Your task to perform on an android device: Go to battery settings Image 0: 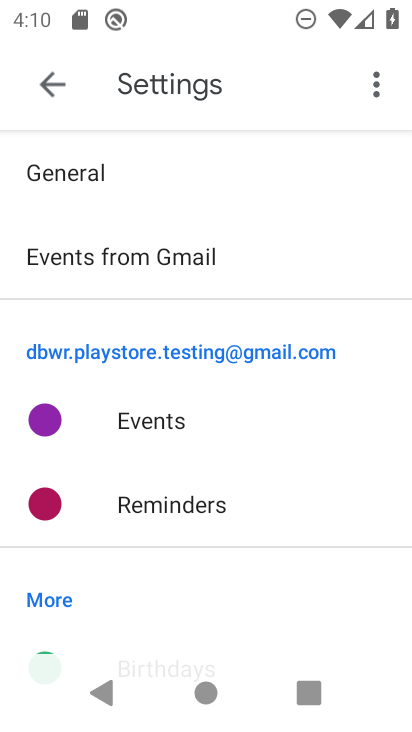
Step 0: press home button
Your task to perform on an android device: Go to battery settings Image 1: 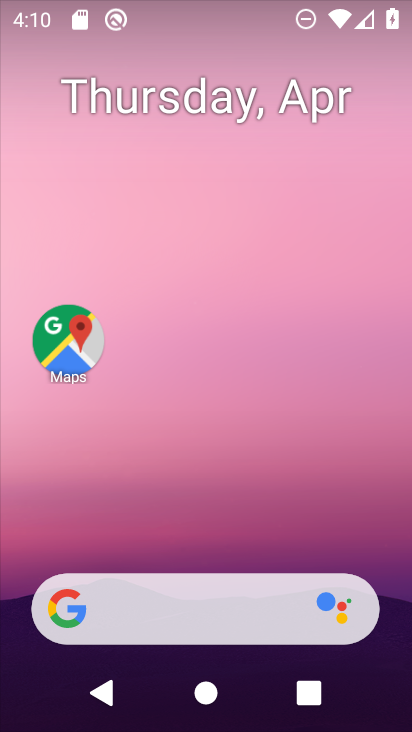
Step 1: drag from (217, 716) to (217, 153)
Your task to perform on an android device: Go to battery settings Image 2: 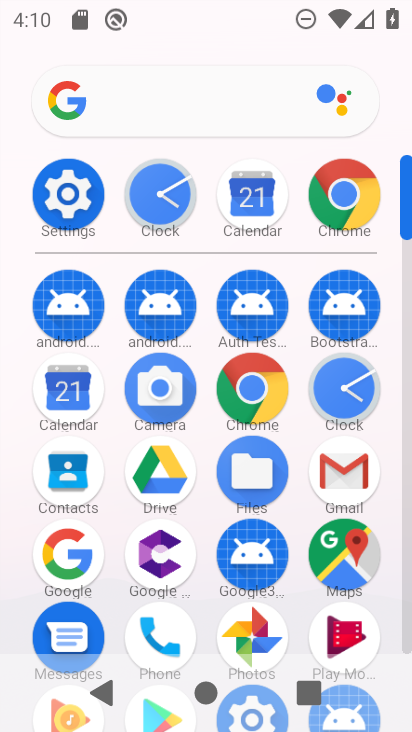
Step 2: click (60, 194)
Your task to perform on an android device: Go to battery settings Image 3: 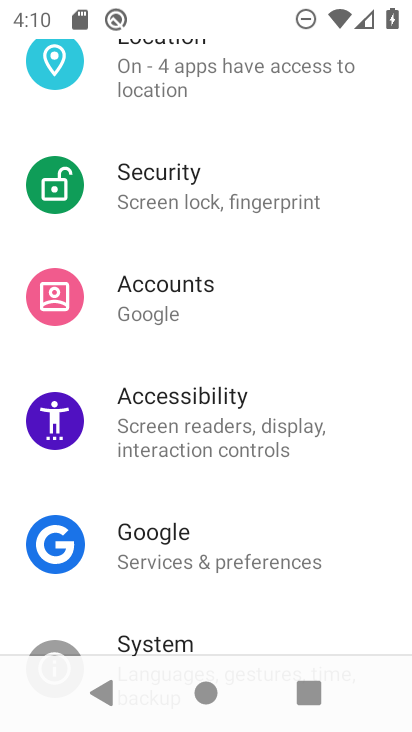
Step 3: drag from (217, 618) to (212, 302)
Your task to perform on an android device: Go to battery settings Image 4: 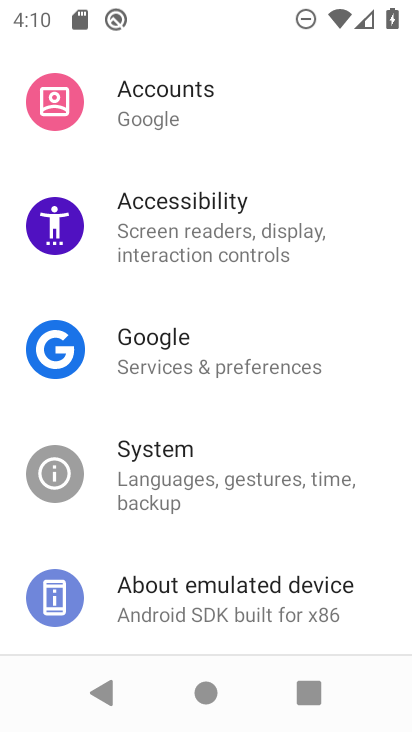
Step 4: drag from (245, 120) to (253, 498)
Your task to perform on an android device: Go to battery settings Image 5: 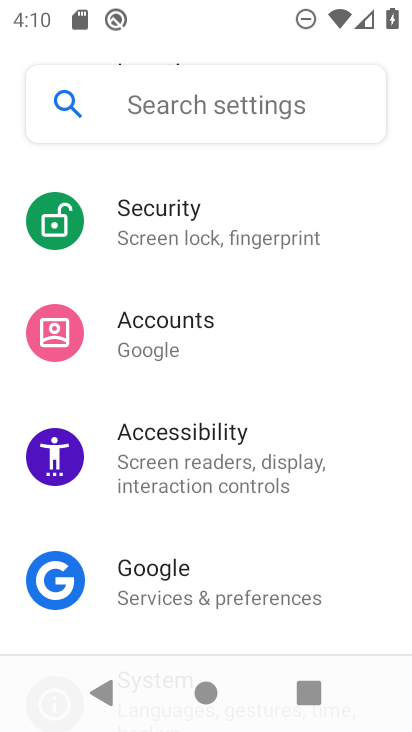
Step 5: drag from (229, 176) to (248, 533)
Your task to perform on an android device: Go to battery settings Image 6: 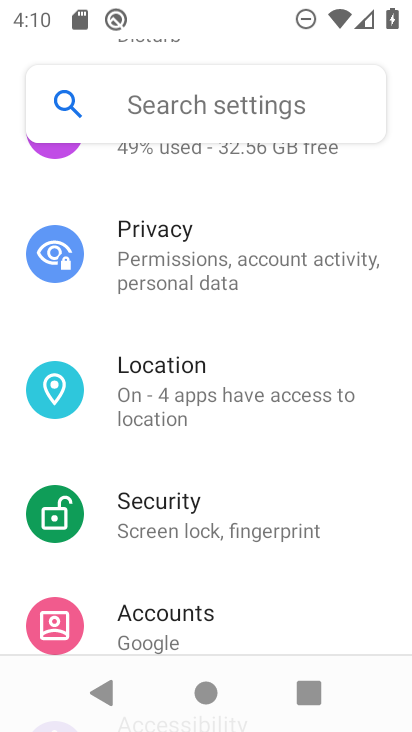
Step 6: drag from (222, 213) to (229, 524)
Your task to perform on an android device: Go to battery settings Image 7: 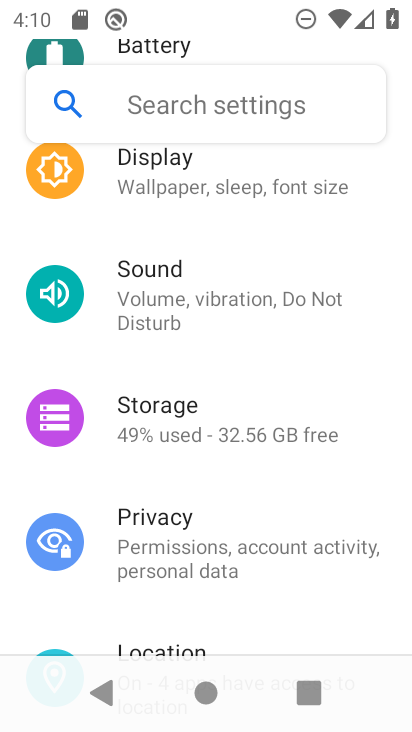
Step 7: drag from (222, 172) to (244, 446)
Your task to perform on an android device: Go to battery settings Image 8: 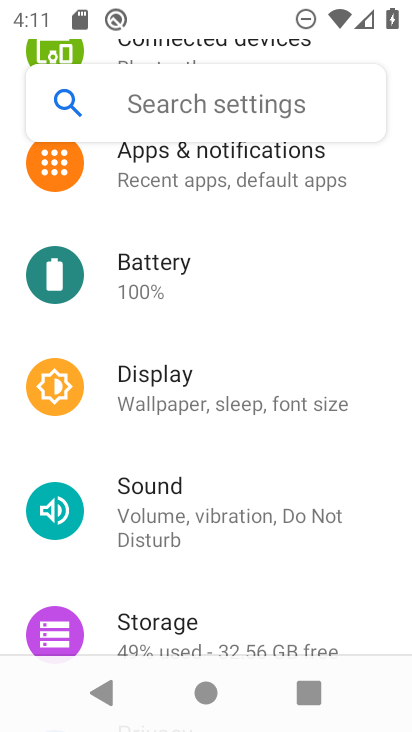
Step 8: click (144, 284)
Your task to perform on an android device: Go to battery settings Image 9: 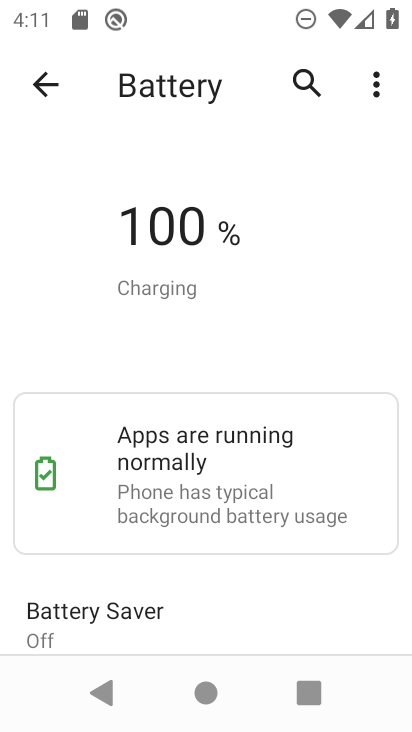
Step 9: task complete